Your task to perform on an android device: set an alarm Image 0: 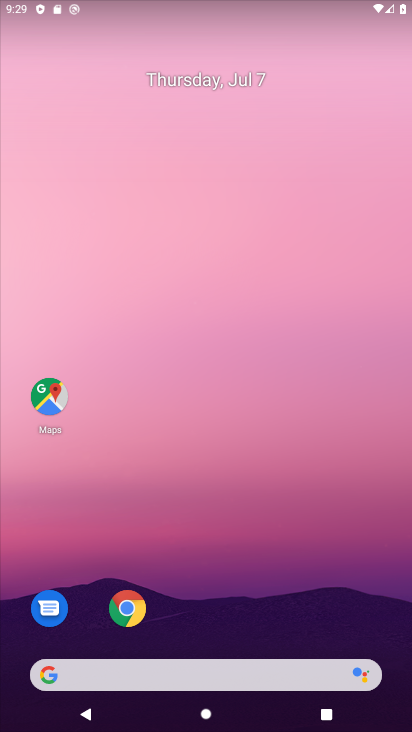
Step 0: drag from (235, 640) to (245, 15)
Your task to perform on an android device: set an alarm Image 1: 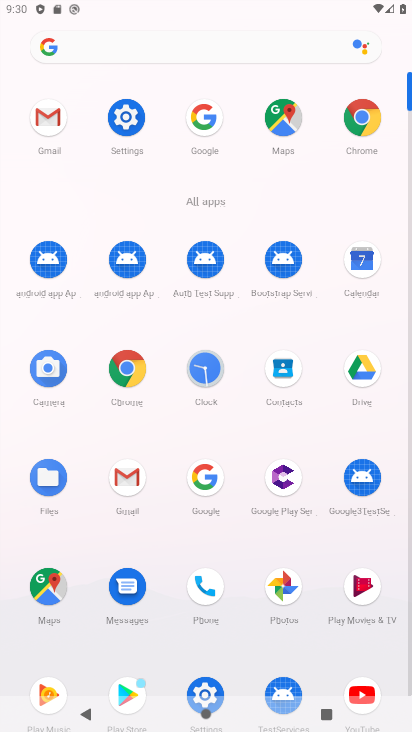
Step 1: click (209, 357)
Your task to perform on an android device: set an alarm Image 2: 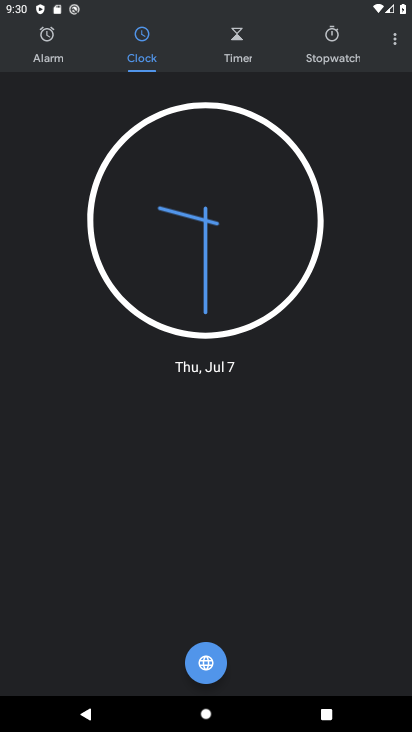
Step 2: click (50, 33)
Your task to perform on an android device: set an alarm Image 3: 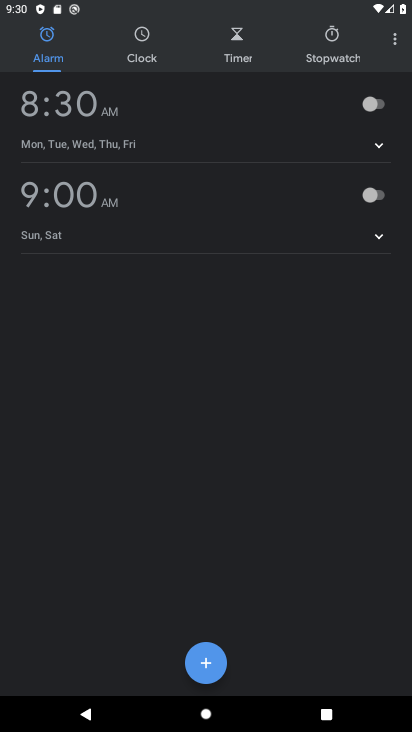
Step 3: click (208, 651)
Your task to perform on an android device: set an alarm Image 4: 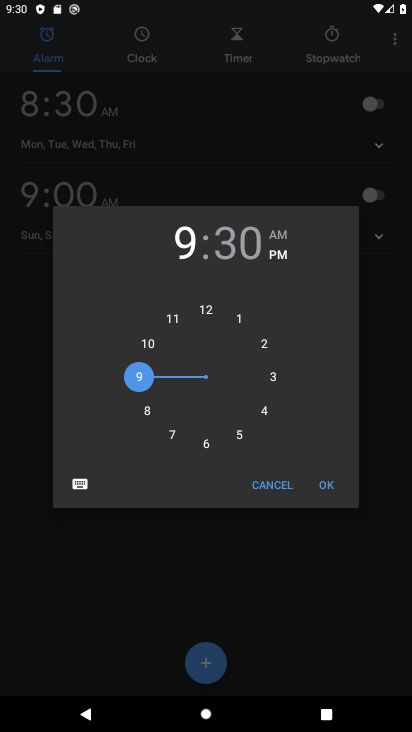
Step 4: click (324, 486)
Your task to perform on an android device: set an alarm Image 5: 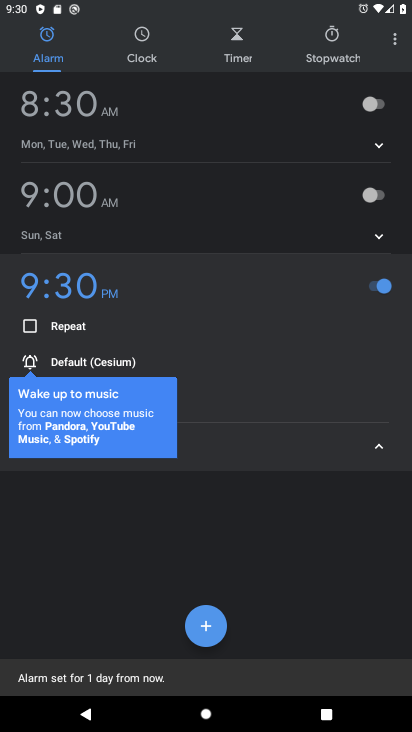
Step 5: task complete